Your task to perform on an android device: Go to notification settings Image 0: 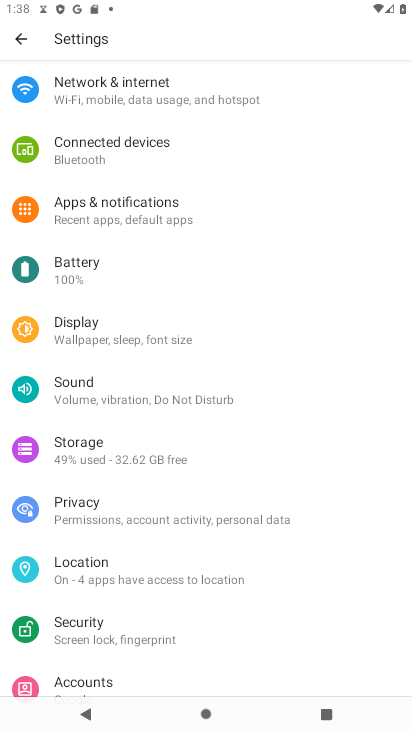
Step 0: press home button
Your task to perform on an android device: Go to notification settings Image 1: 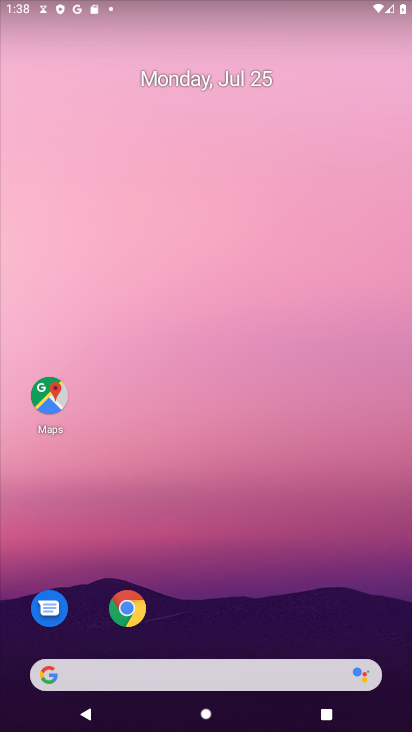
Step 1: drag from (174, 673) to (349, 15)
Your task to perform on an android device: Go to notification settings Image 2: 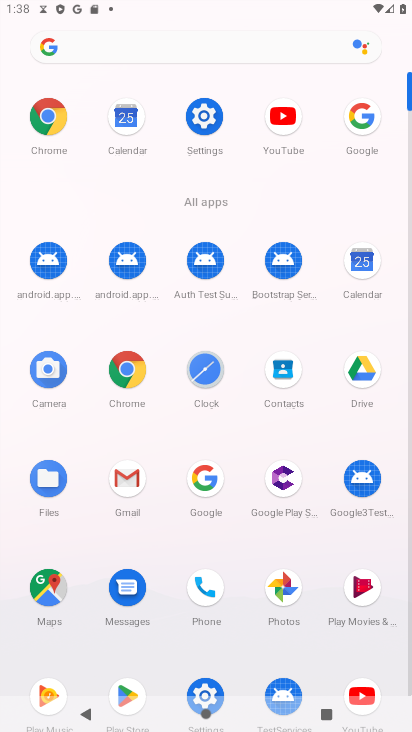
Step 2: click (204, 116)
Your task to perform on an android device: Go to notification settings Image 3: 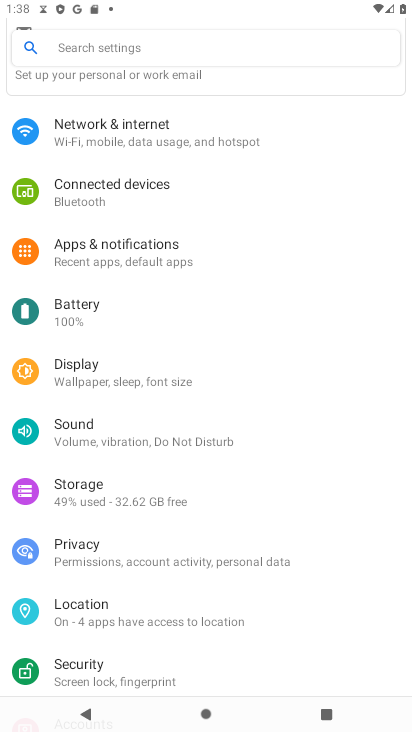
Step 3: click (132, 252)
Your task to perform on an android device: Go to notification settings Image 4: 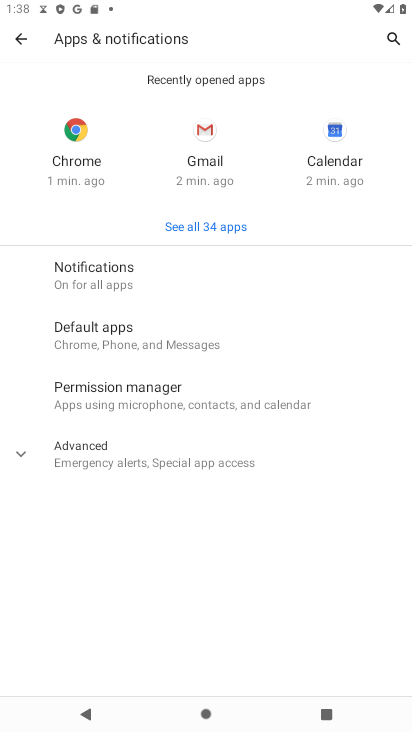
Step 4: click (105, 283)
Your task to perform on an android device: Go to notification settings Image 5: 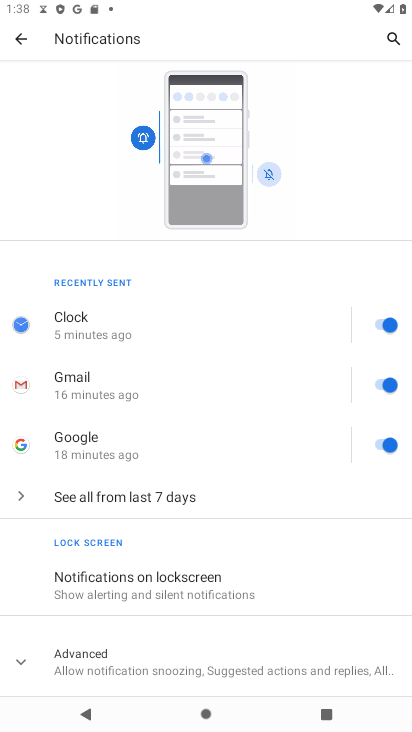
Step 5: task complete